Your task to perform on an android device: open the mobile data screen to see how much data has been used Image 0: 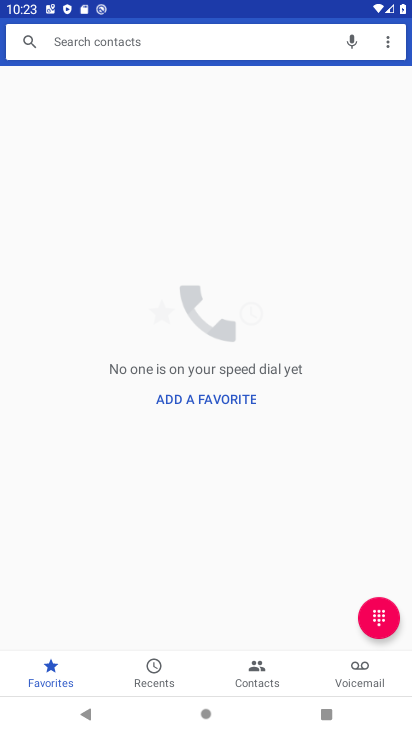
Step 0: press home button
Your task to perform on an android device: open the mobile data screen to see how much data has been used Image 1: 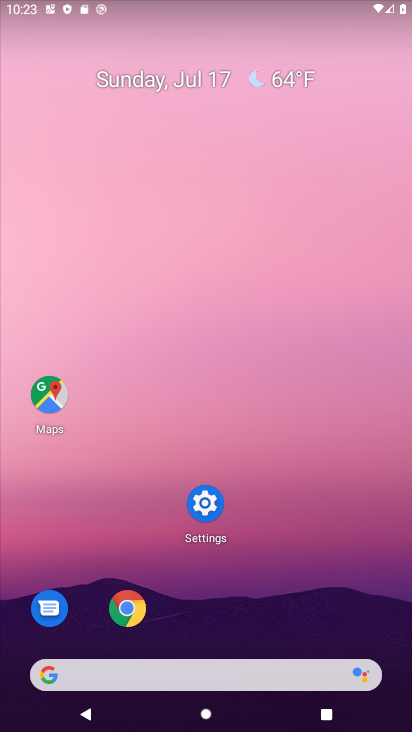
Step 1: drag from (402, 683) to (289, 141)
Your task to perform on an android device: open the mobile data screen to see how much data has been used Image 2: 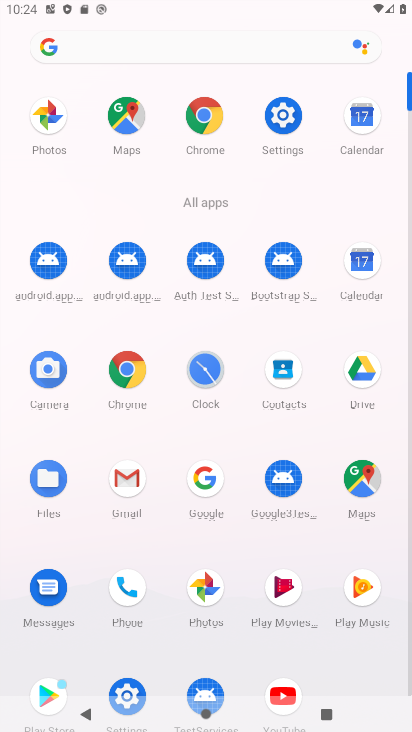
Step 2: click (287, 120)
Your task to perform on an android device: open the mobile data screen to see how much data has been used Image 3: 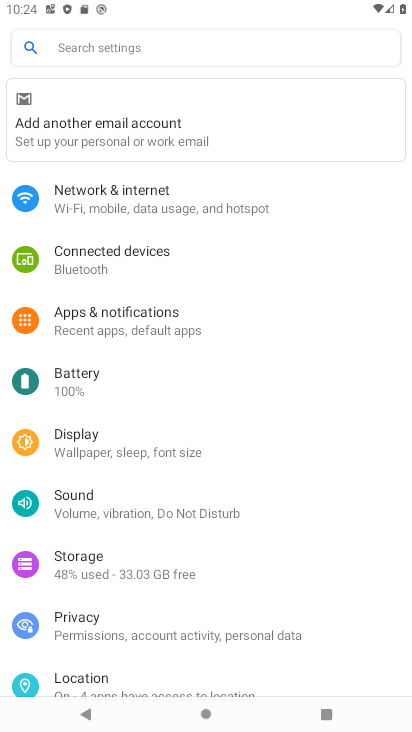
Step 3: click (137, 197)
Your task to perform on an android device: open the mobile data screen to see how much data has been used Image 4: 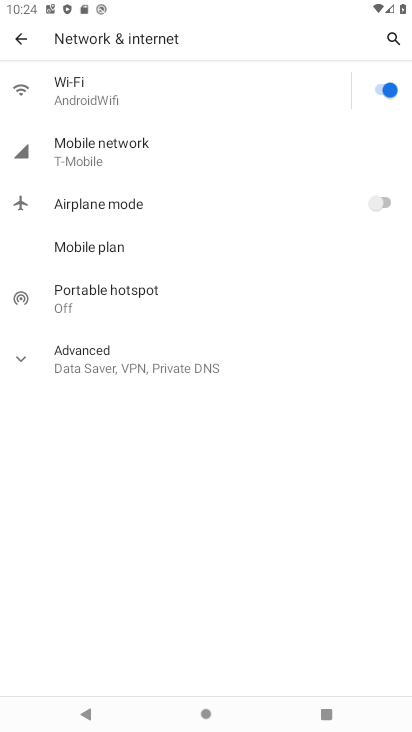
Step 4: click (124, 148)
Your task to perform on an android device: open the mobile data screen to see how much data has been used Image 5: 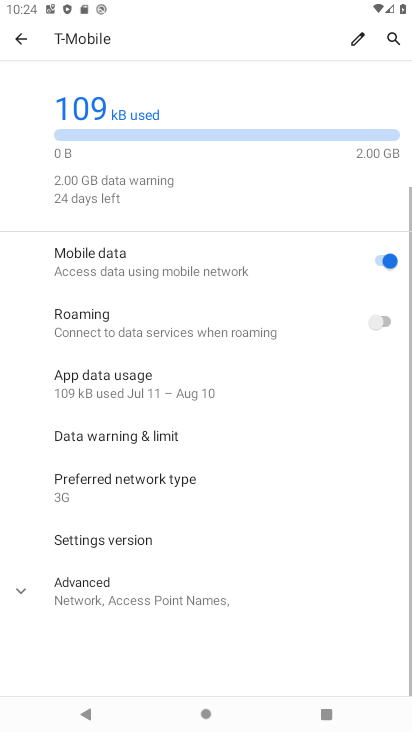
Step 5: task complete